Your task to perform on an android device: open chrome and create a bookmark for the current page Image 0: 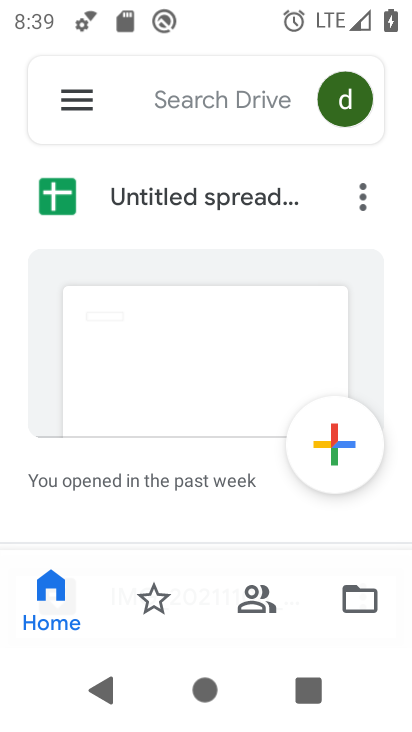
Step 0: press home button
Your task to perform on an android device: open chrome and create a bookmark for the current page Image 1: 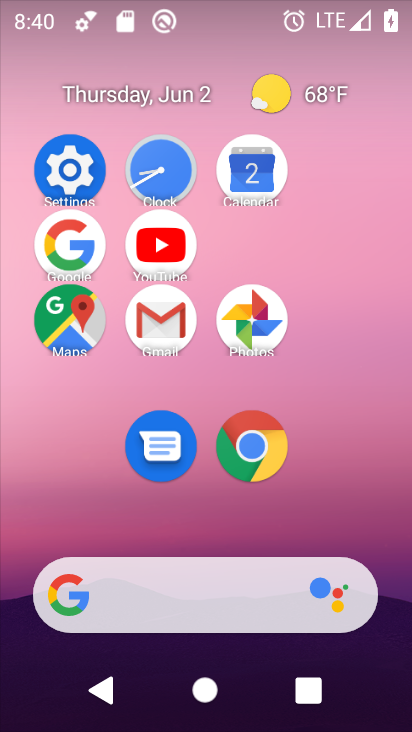
Step 1: click (287, 446)
Your task to perform on an android device: open chrome and create a bookmark for the current page Image 2: 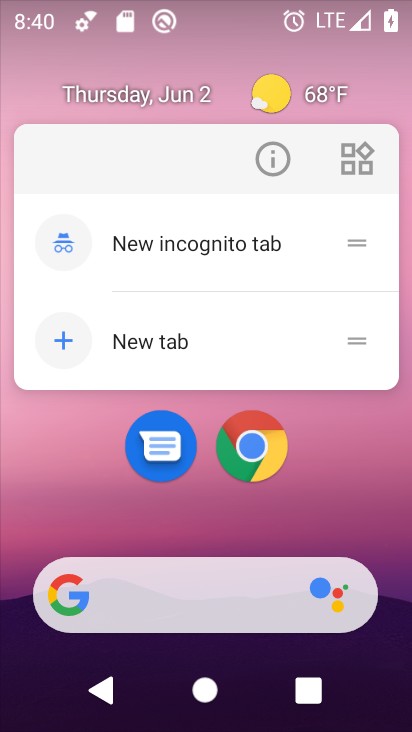
Step 2: click (285, 483)
Your task to perform on an android device: open chrome and create a bookmark for the current page Image 3: 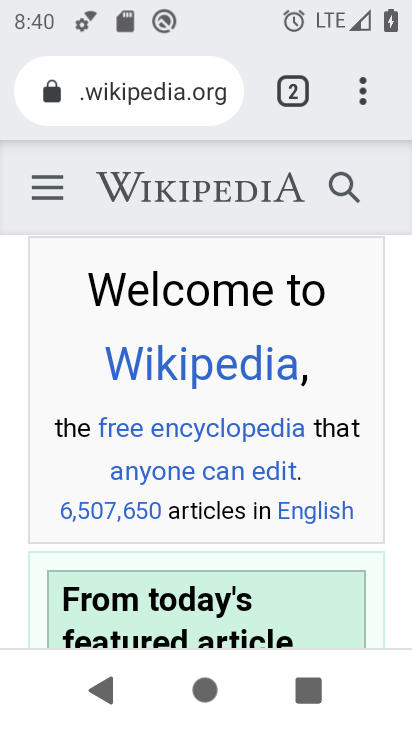
Step 3: click (368, 93)
Your task to perform on an android device: open chrome and create a bookmark for the current page Image 4: 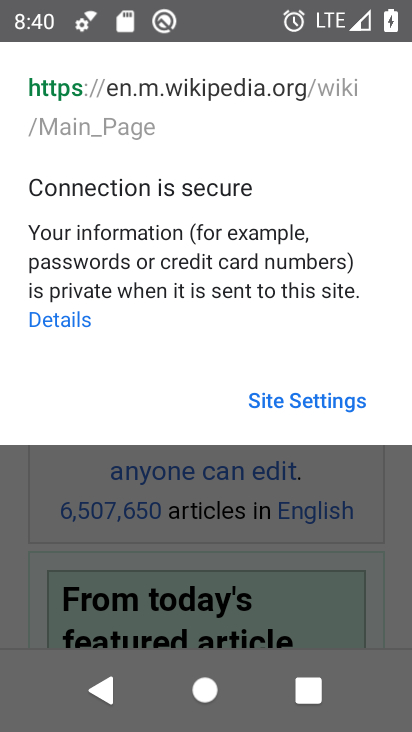
Step 4: click (402, 561)
Your task to perform on an android device: open chrome and create a bookmark for the current page Image 5: 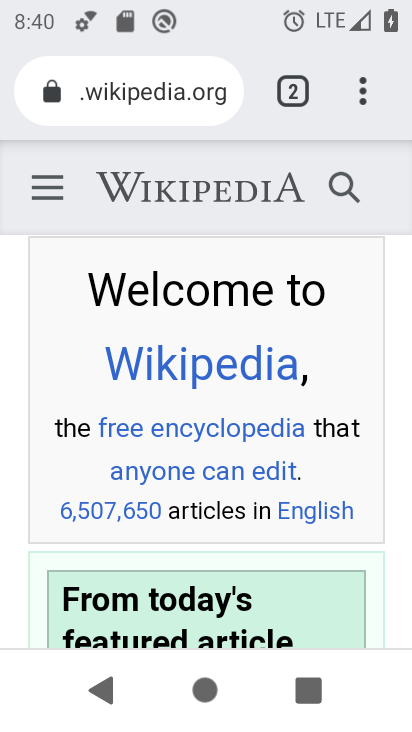
Step 5: click (402, 561)
Your task to perform on an android device: open chrome and create a bookmark for the current page Image 6: 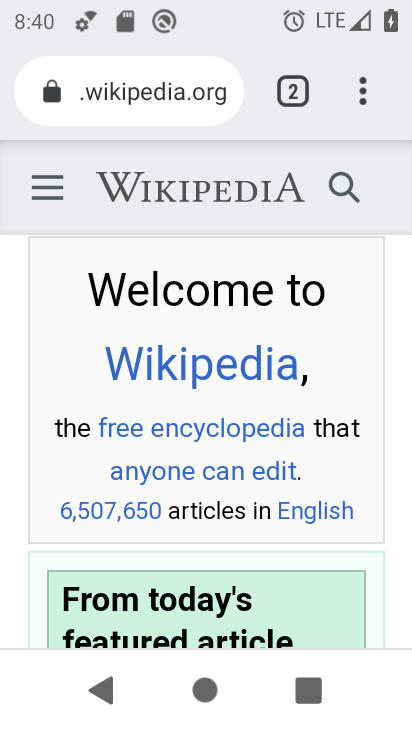
Step 6: click (365, 84)
Your task to perform on an android device: open chrome and create a bookmark for the current page Image 7: 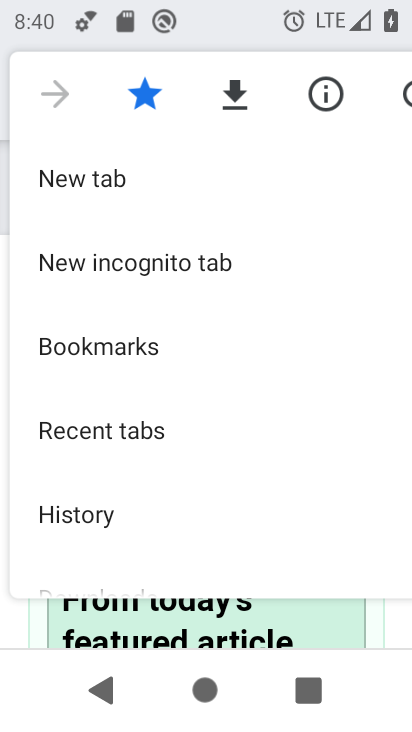
Step 7: task complete